Your task to perform on an android device: move a message to another label in the gmail app Image 0: 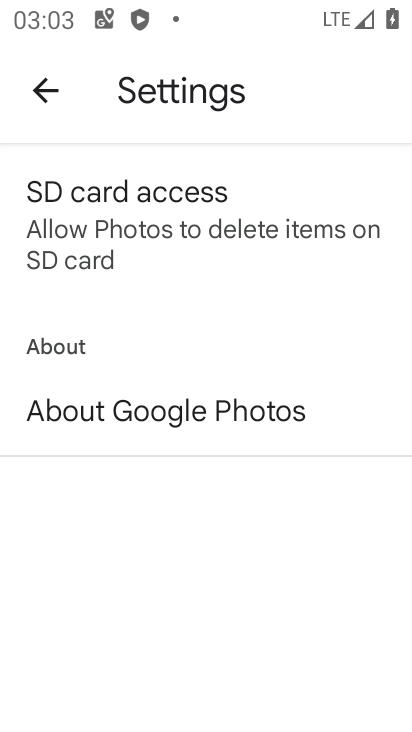
Step 0: press home button
Your task to perform on an android device: move a message to another label in the gmail app Image 1: 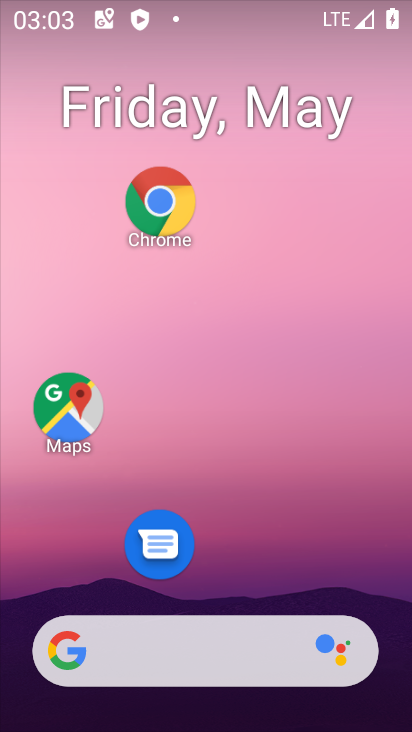
Step 1: drag from (268, 587) to (287, 175)
Your task to perform on an android device: move a message to another label in the gmail app Image 2: 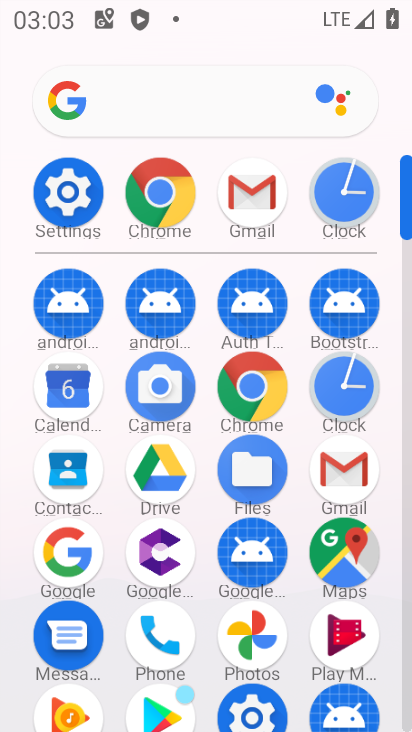
Step 2: click (352, 481)
Your task to perform on an android device: move a message to another label in the gmail app Image 3: 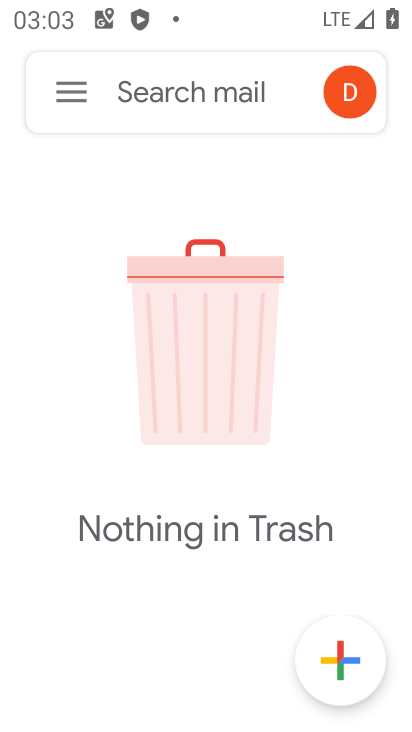
Step 3: click (75, 103)
Your task to perform on an android device: move a message to another label in the gmail app Image 4: 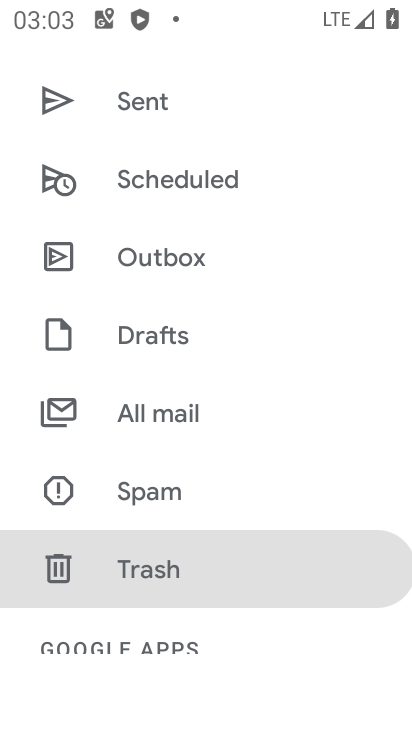
Step 4: drag from (127, 183) to (190, 300)
Your task to perform on an android device: move a message to another label in the gmail app Image 5: 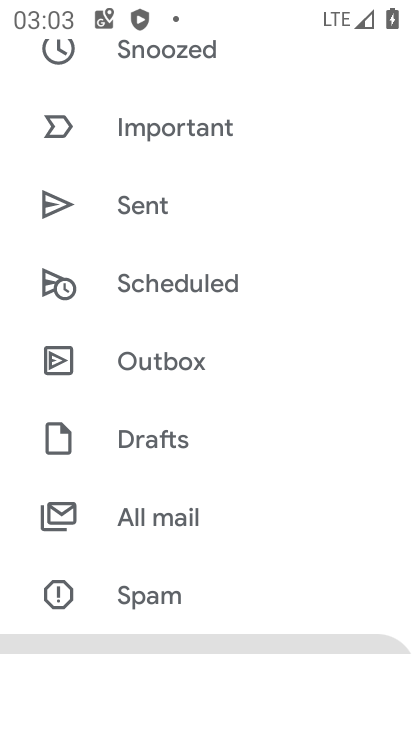
Step 5: click (162, 512)
Your task to perform on an android device: move a message to another label in the gmail app Image 6: 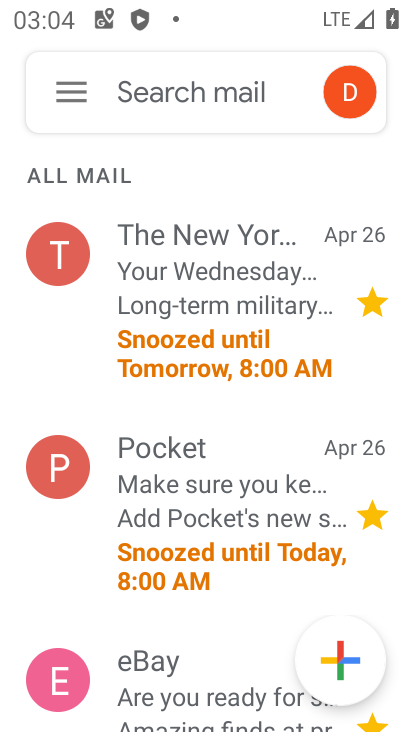
Step 6: click (190, 328)
Your task to perform on an android device: move a message to another label in the gmail app Image 7: 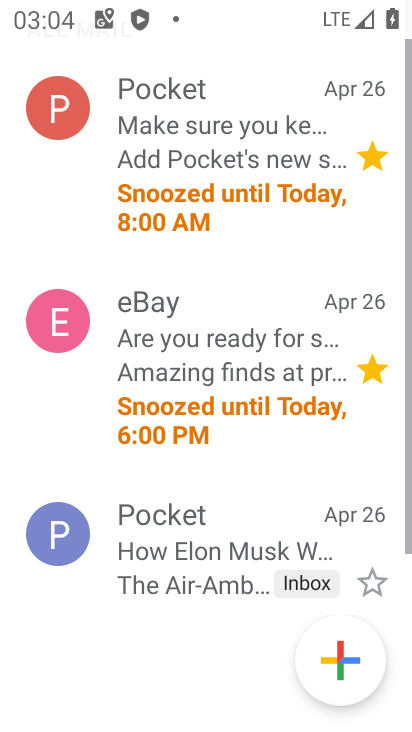
Step 7: click (232, 175)
Your task to perform on an android device: move a message to another label in the gmail app Image 8: 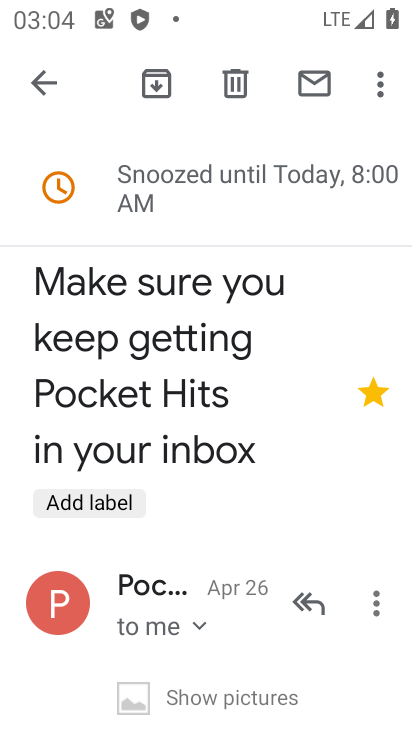
Step 8: click (389, 89)
Your task to perform on an android device: move a message to another label in the gmail app Image 9: 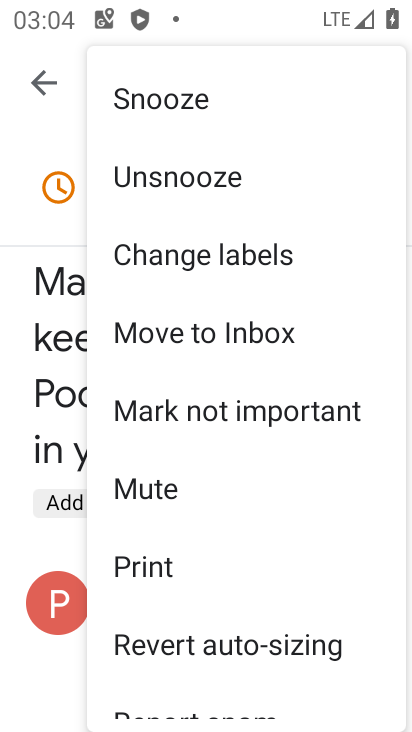
Step 9: click (276, 282)
Your task to perform on an android device: move a message to another label in the gmail app Image 10: 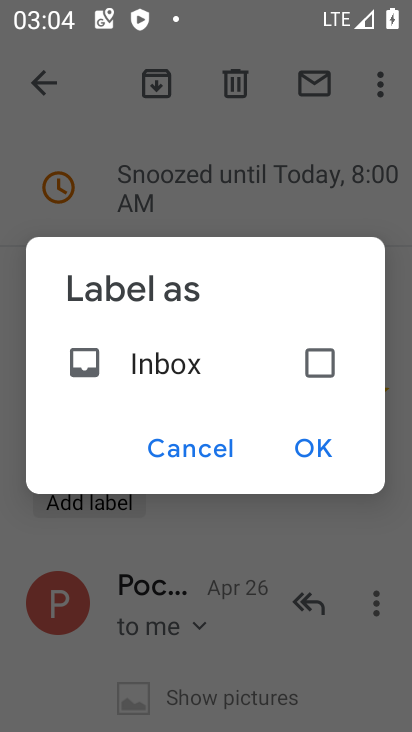
Step 10: click (314, 368)
Your task to perform on an android device: move a message to another label in the gmail app Image 11: 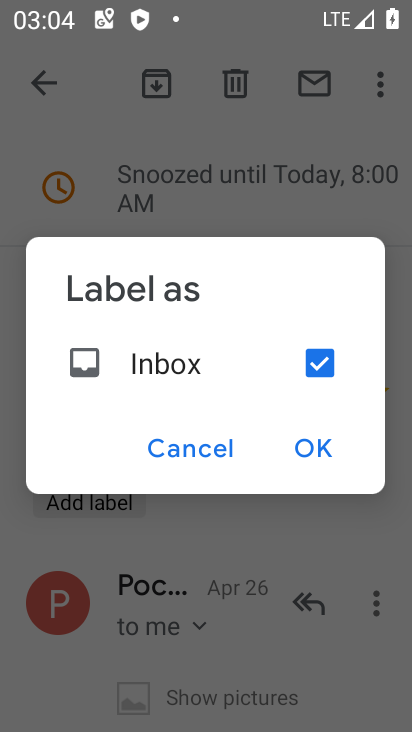
Step 11: click (317, 445)
Your task to perform on an android device: move a message to another label in the gmail app Image 12: 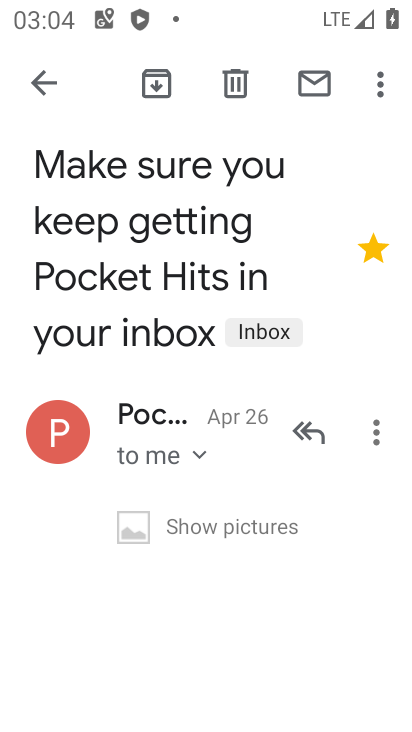
Step 12: task complete